Your task to perform on an android device: change text size in settings app Image 0: 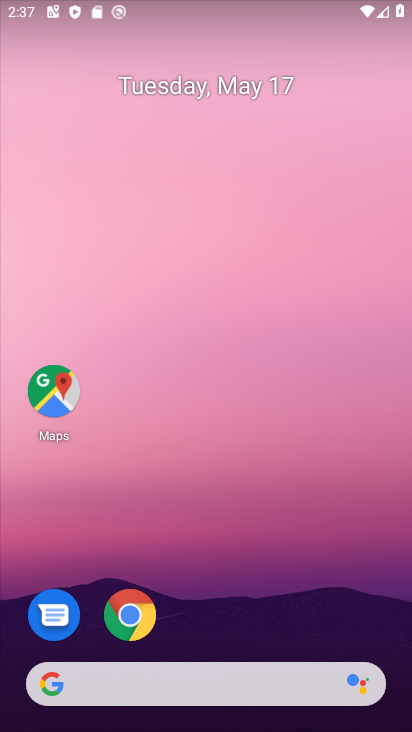
Step 0: drag from (197, 723) to (228, 180)
Your task to perform on an android device: change text size in settings app Image 1: 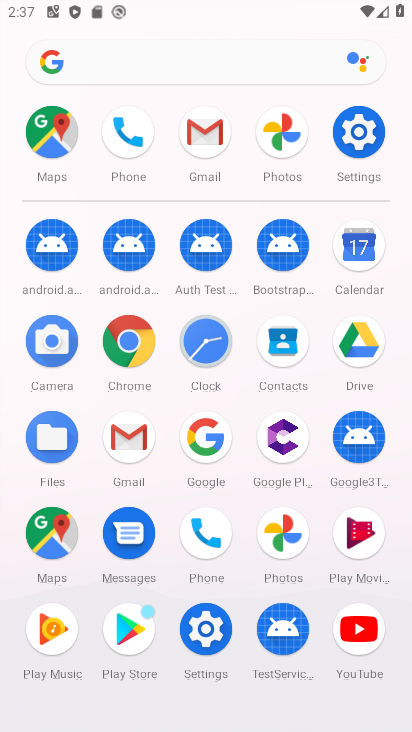
Step 1: click (354, 135)
Your task to perform on an android device: change text size in settings app Image 2: 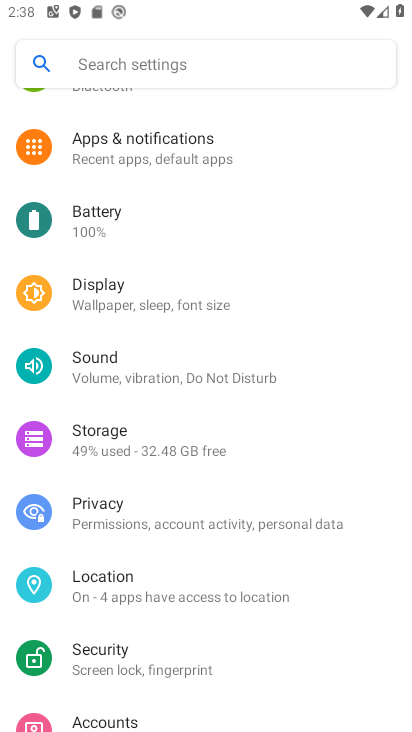
Step 2: click (99, 305)
Your task to perform on an android device: change text size in settings app Image 3: 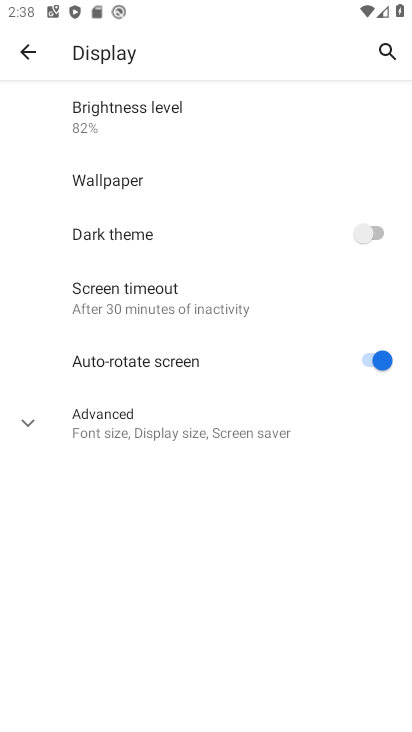
Step 3: click (98, 418)
Your task to perform on an android device: change text size in settings app Image 4: 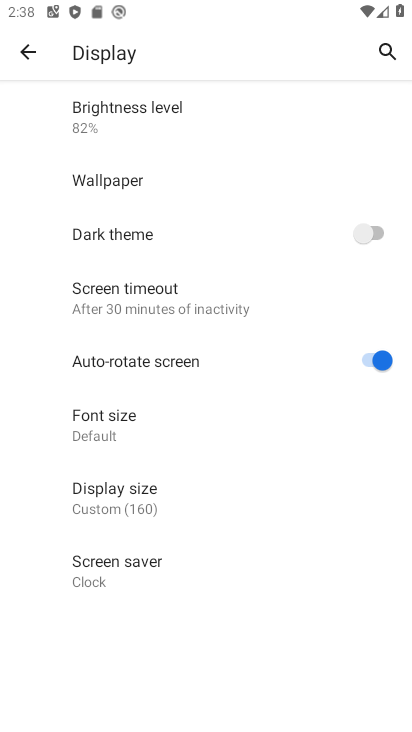
Step 4: click (98, 418)
Your task to perform on an android device: change text size in settings app Image 5: 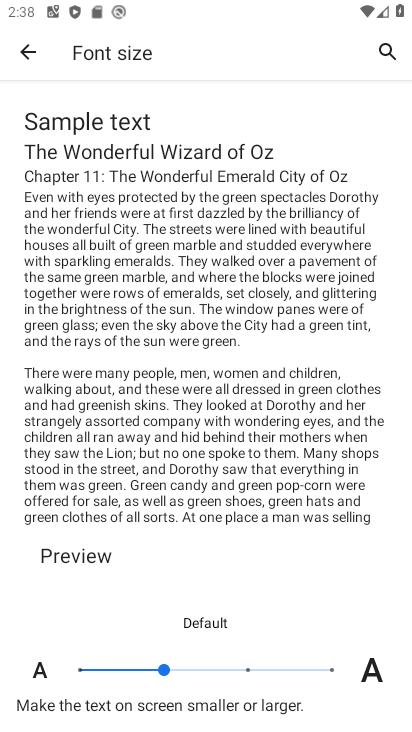
Step 5: click (243, 670)
Your task to perform on an android device: change text size in settings app Image 6: 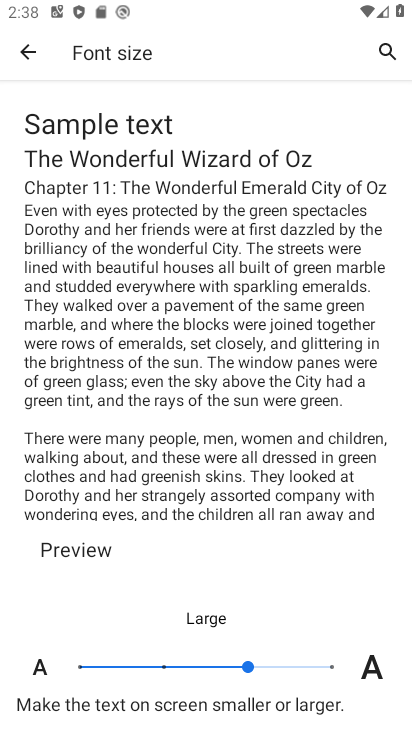
Step 6: task complete